Your task to perform on an android device: turn on location history Image 0: 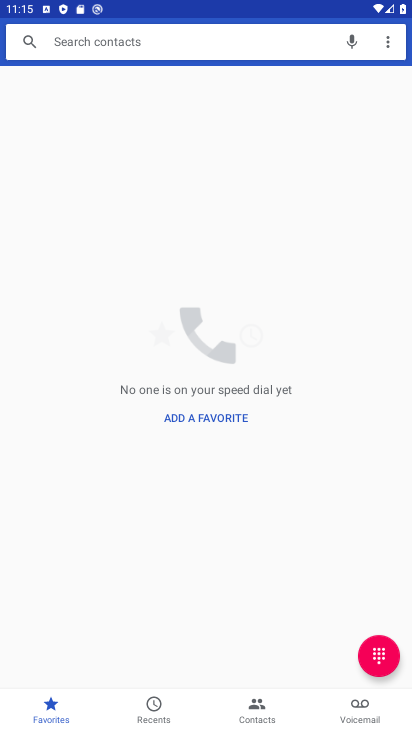
Step 0: press home button
Your task to perform on an android device: turn on location history Image 1: 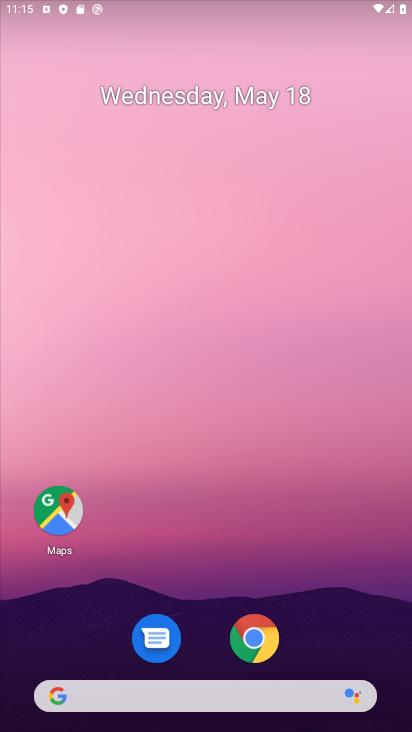
Step 1: drag from (360, 636) to (354, 115)
Your task to perform on an android device: turn on location history Image 2: 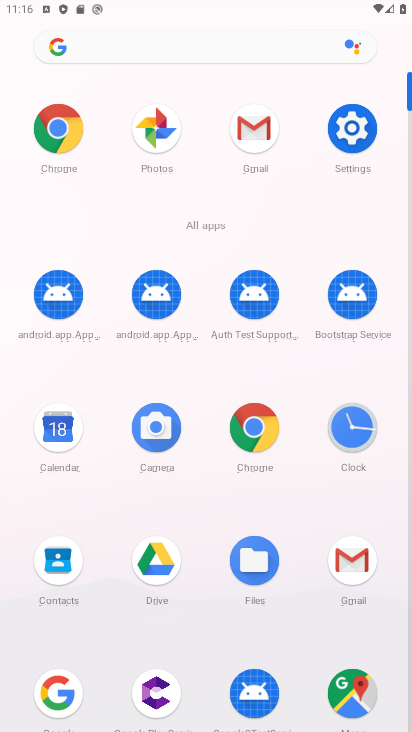
Step 2: click (347, 158)
Your task to perform on an android device: turn on location history Image 3: 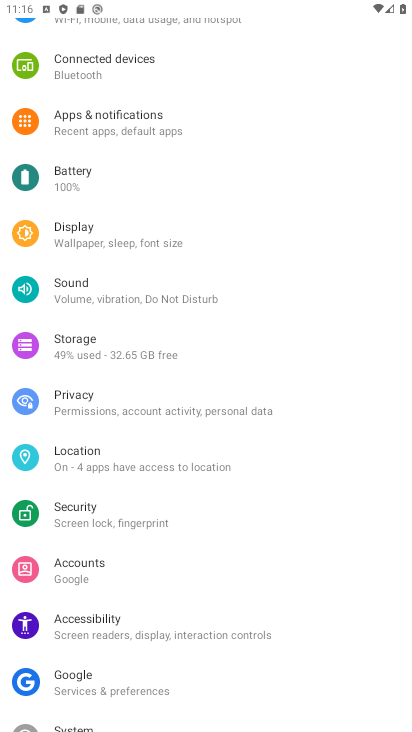
Step 3: click (41, 452)
Your task to perform on an android device: turn on location history Image 4: 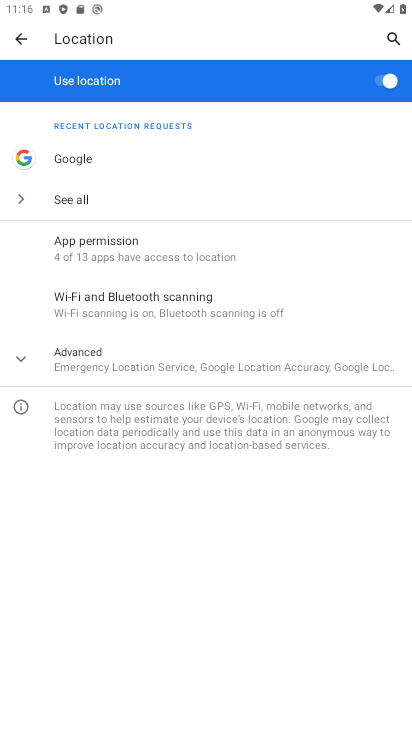
Step 4: click (187, 367)
Your task to perform on an android device: turn on location history Image 5: 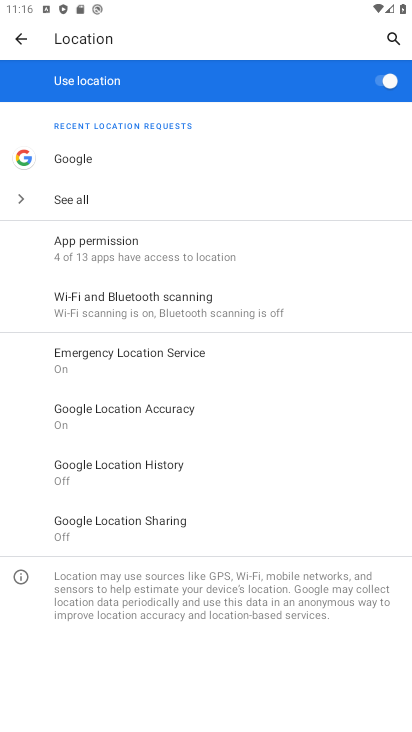
Step 5: click (256, 468)
Your task to perform on an android device: turn on location history Image 6: 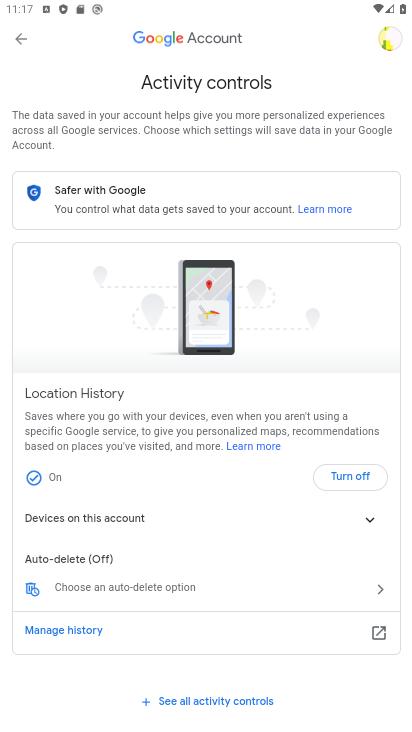
Step 6: click (354, 473)
Your task to perform on an android device: turn on location history Image 7: 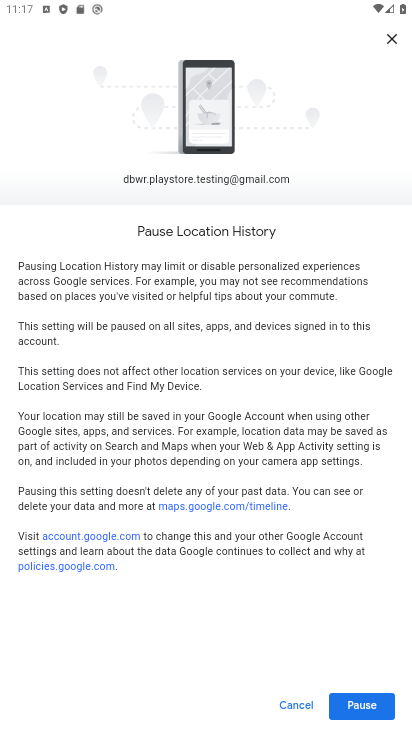
Step 7: task complete